Your task to perform on an android device: Open Android settings Image 0: 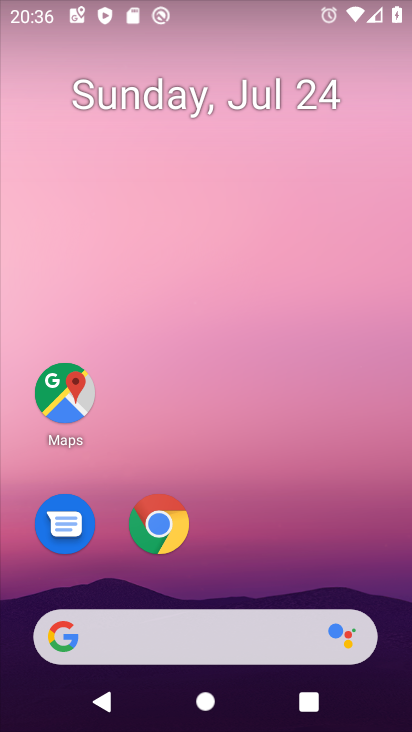
Step 0: drag from (256, 543) to (276, 13)
Your task to perform on an android device: Open Android settings Image 1: 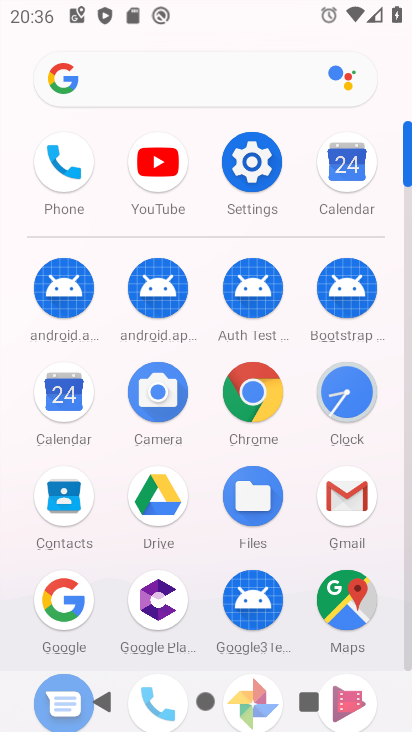
Step 1: click (259, 164)
Your task to perform on an android device: Open Android settings Image 2: 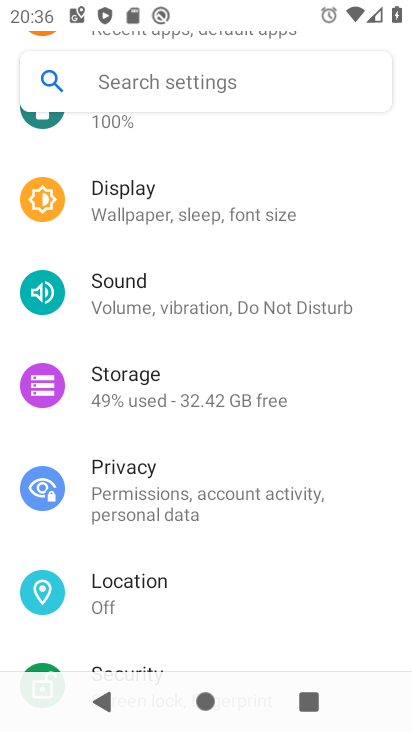
Step 2: drag from (242, 627) to (254, 0)
Your task to perform on an android device: Open Android settings Image 3: 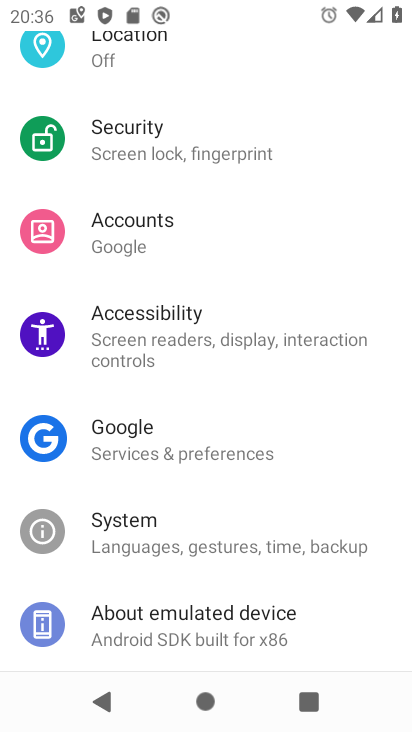
Step 3: click (176, 616)
Your task to perform on an android device: Open Android settings Image 4: 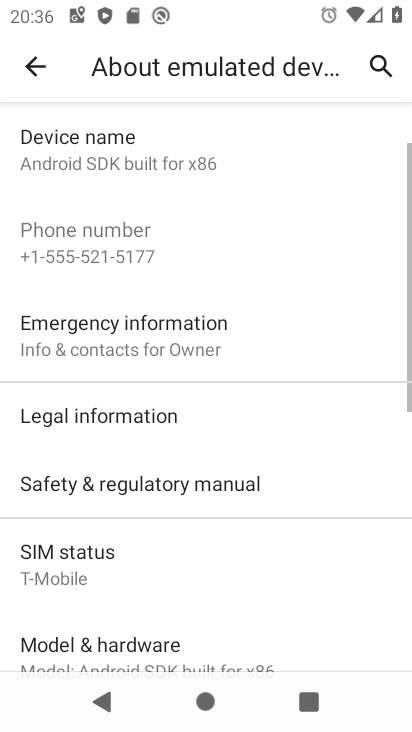
Step 4: task complete